Your task to perform on an android device: Open Wikipedia Image 0: 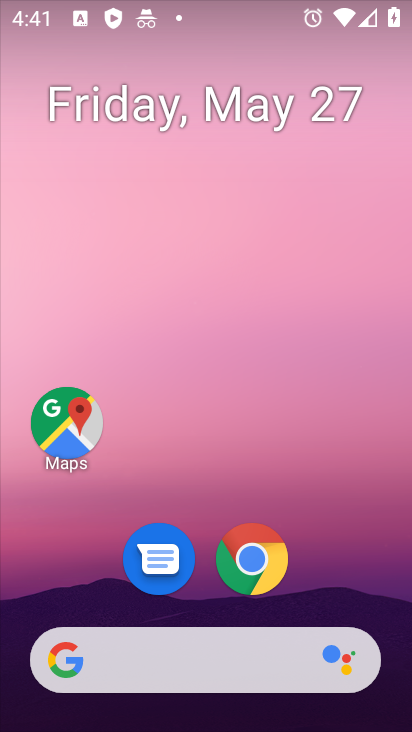
Step 0: drag from (237, 441) to (272, 110)
Your task to perform on an android device: Open Wikipedia Image 1: 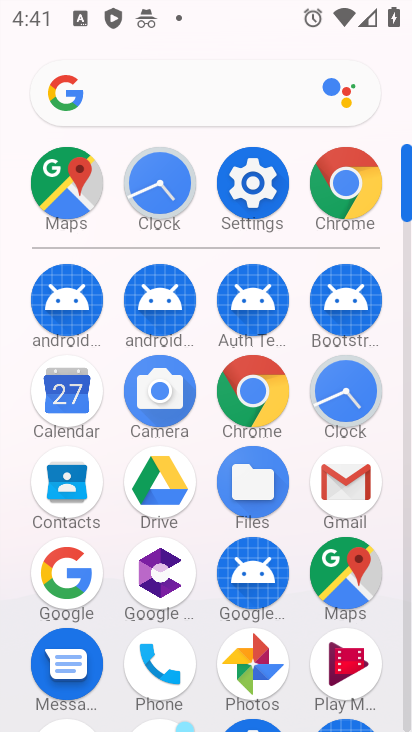
Step 1: click (269, 392)
Your task to perform on an android device: Open Wikipedia Image 2: 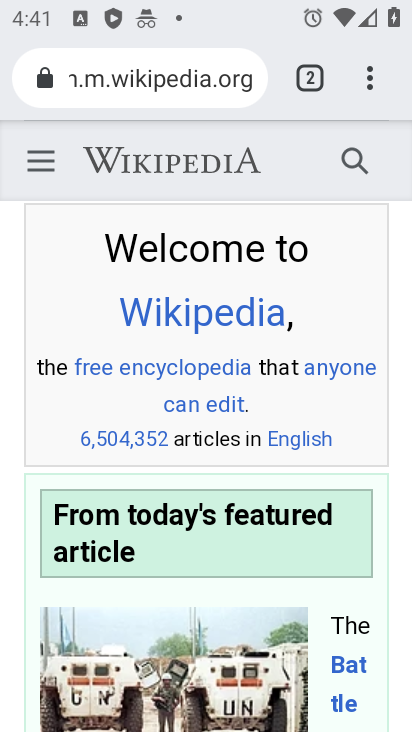
Step 2: task complete